Your task to perform on an android device: star an email in the gmail app Image 0: 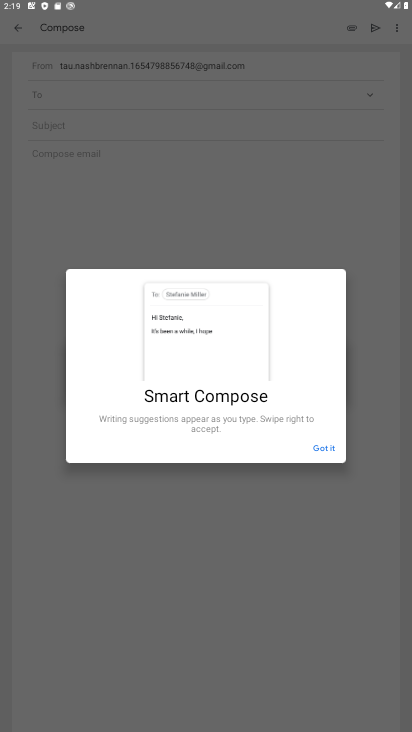
Step 0: press home button
Your task to perform on an android device: star an email in the gmail app Image 1: 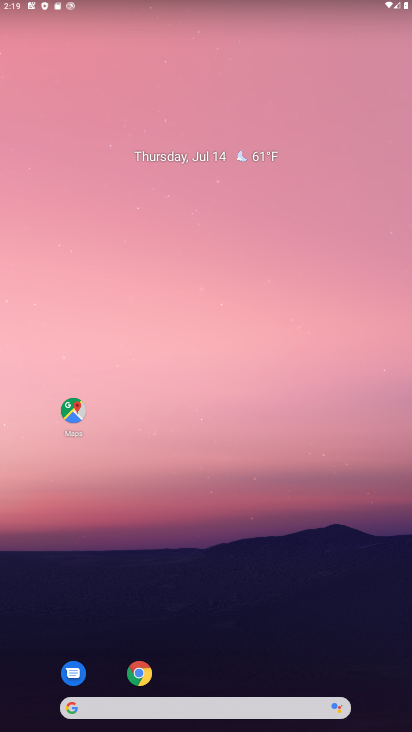
Step 1: drag from (196, 685) to (169, 228)
Your task to perform on an android device: star an email in the gmail app Image 2: 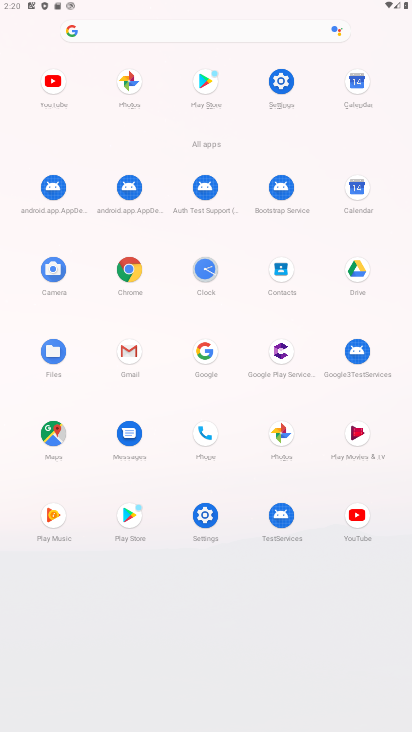
Step 2: click (125, 346)
Your task to perform on an android device: star an email in the gmail app Image 3: 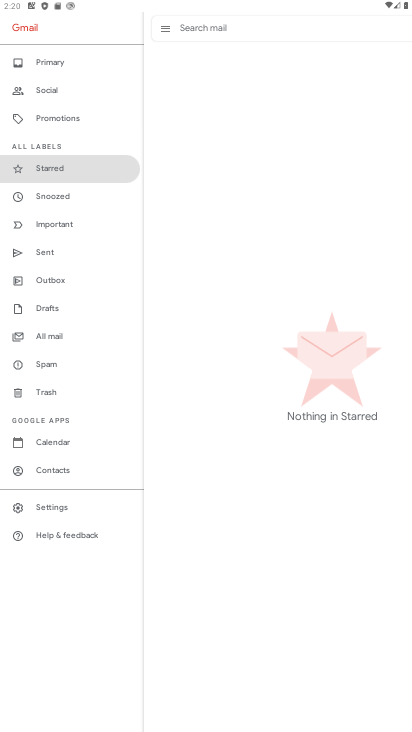
Step 3: click (22, 335)
Your task to perform on an android device: star an email in the gmail app Image 4: 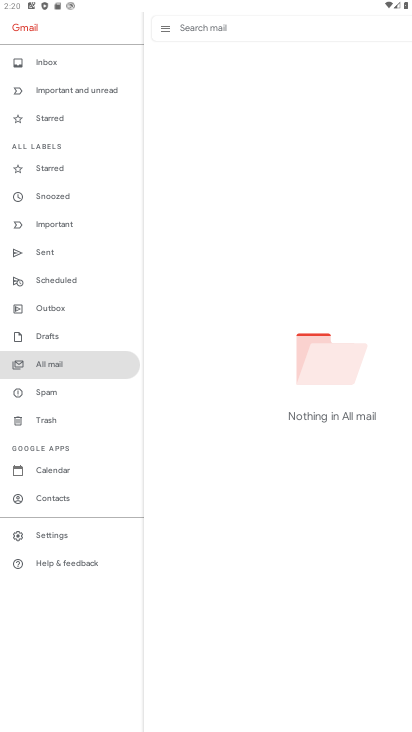
Step 4: task complete